Your task to perform on an android device: Go to Google Image 0: 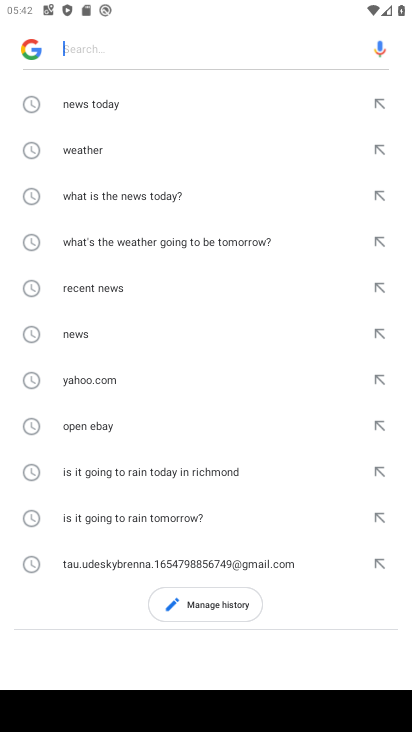
Step 0: press home button
Your task to perform on an android device: Go to Google Image 1: 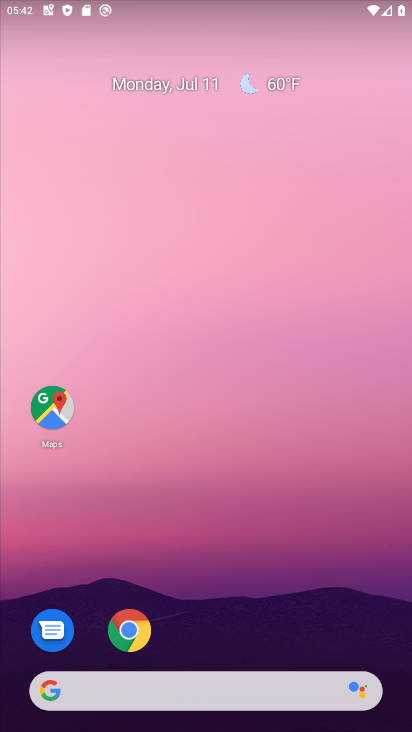
Step 1: click (168, 684)
Your task to perform on an android device: Go to Google Image 2: 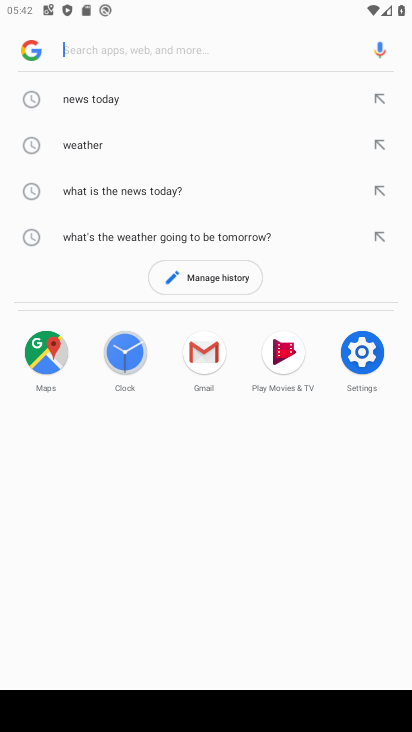
Step 2: task complete